Your task to perform on an android device: When is my next appointment? Image 0: 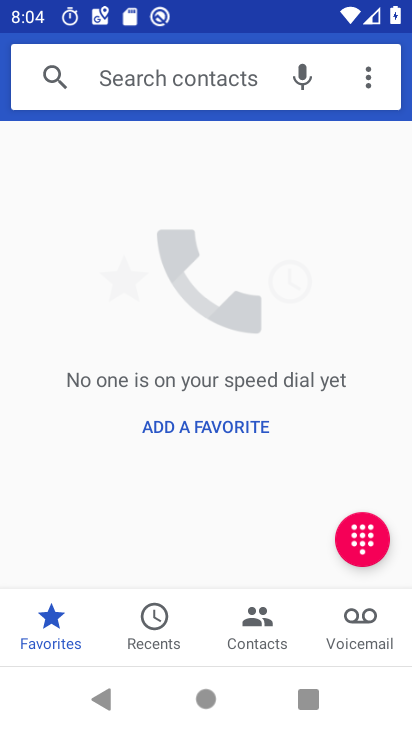
Step 0: drag from (378, 573) to (376, 475)
Your task to perform on an android device: When is my next appointment? Image 1: 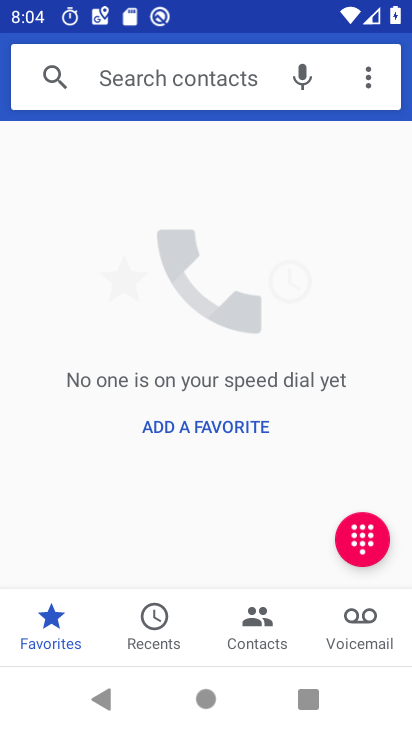
Step 1: press home button
Your task to perform on an android device: When is my next appointment? Image 2: 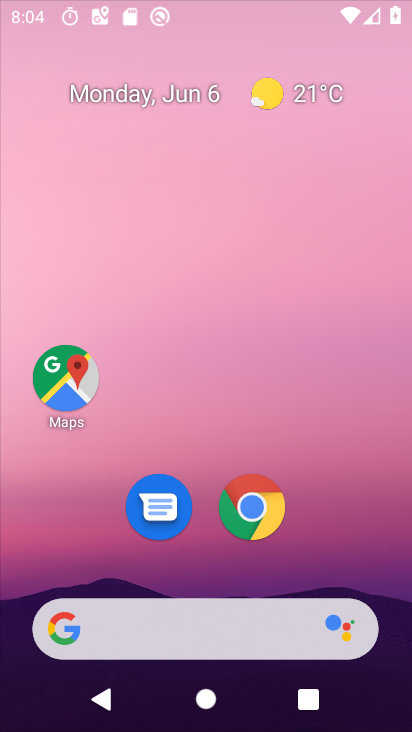
Step 2: drag from (364, 383) to (378, 5)
Your task to perform on an android device: When is my next appointment? Image 3: 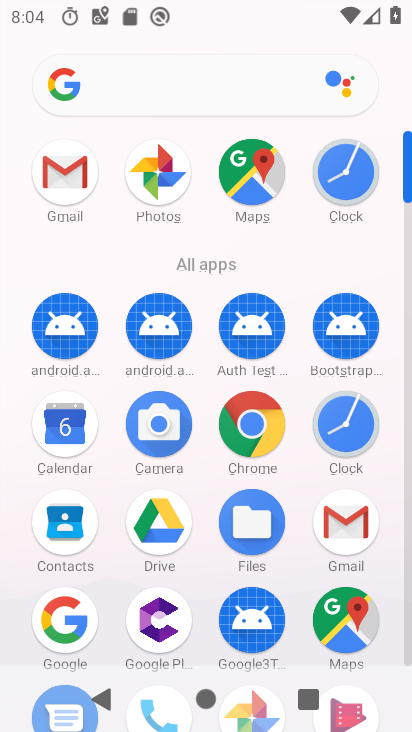
Step 3: click (52, 390)
Your task to perform on an android device: When is my next appointment? Image 4: 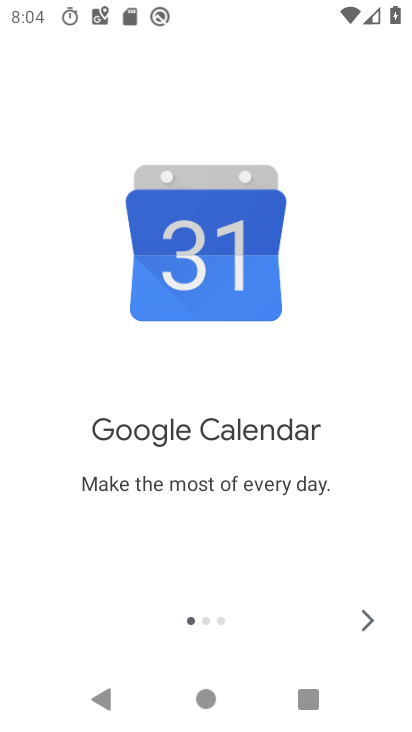
Step 4: click (386, 643)
Your task to perform on an android device: When is my next appointment? Image 5: 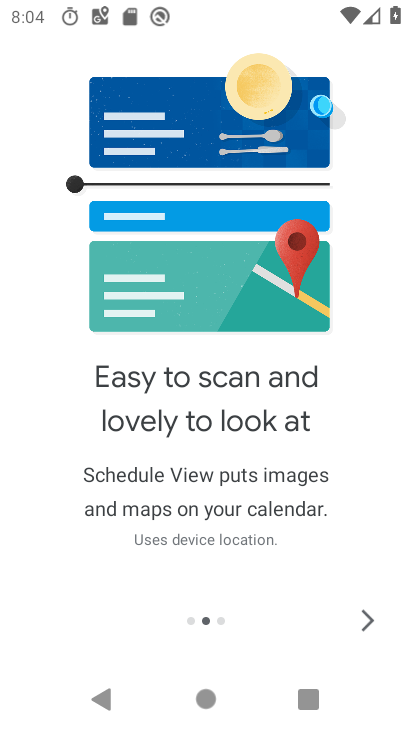
Step 5: click (373, 630)
Your task to perform on an android device: When is my next appointment? Image 6: 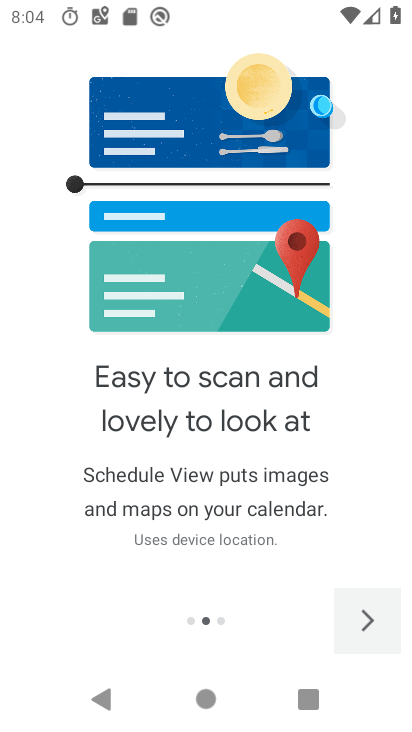
Step 6: click (373, 630)
Your task to perform on an android device: When is my next appointment? Image 7: 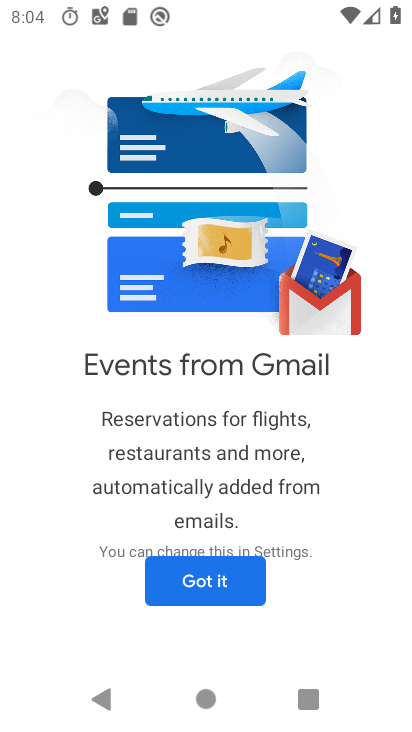
Step 7: click (194, 585)
Your task to perform on an android device: When is my next appointment? Image 8: 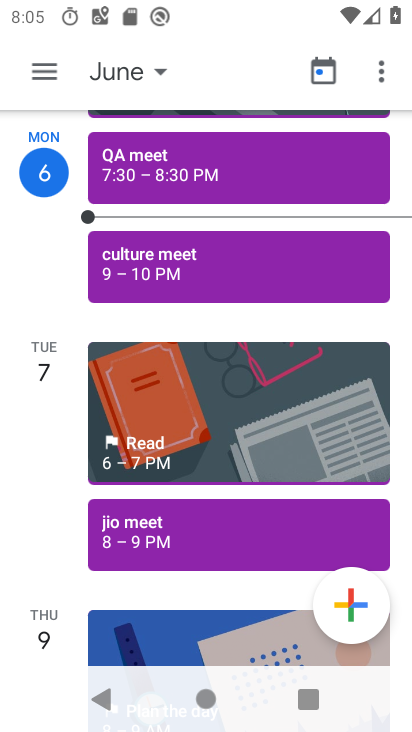
Step 8: click (171, 78)
Your task to perform on an android device: When is my next appointment? Image 9: 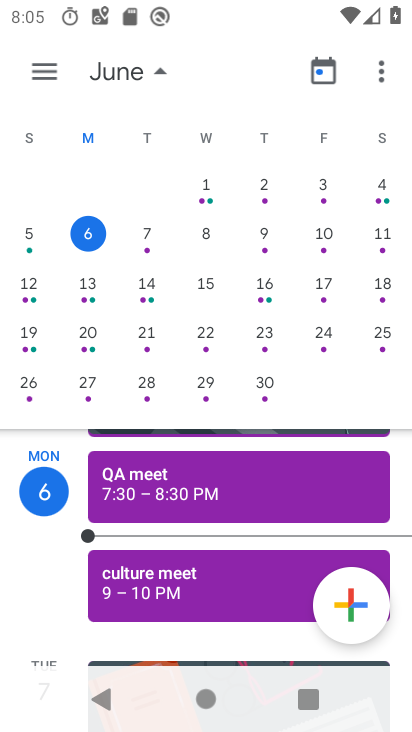
Step 9: click (145, 231)
Your task to perform on an android device: When is my next appointment? Image 10: 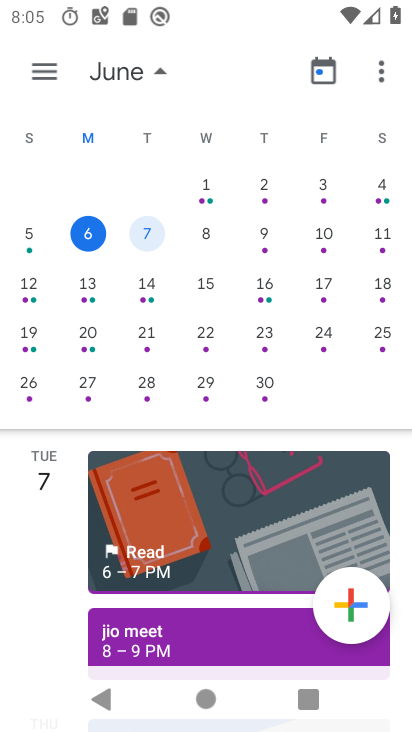
Step 10: click (163, 64)
Your task to perform on an android device: When is my next appointment? Image 11: 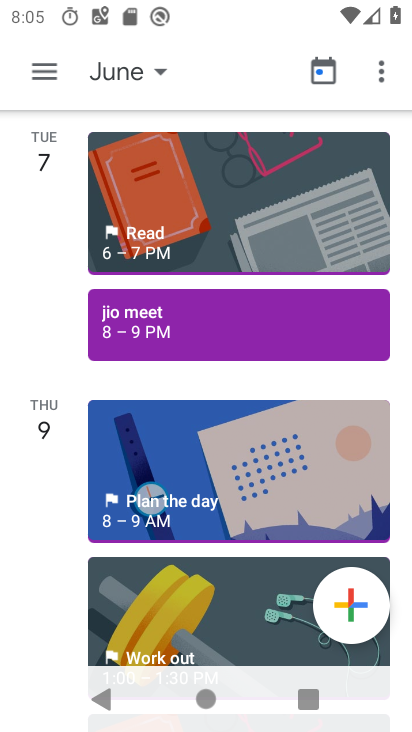
Step 11: task complete